Your task to perform on an android device: Open Maps and search for coffee Image 0: 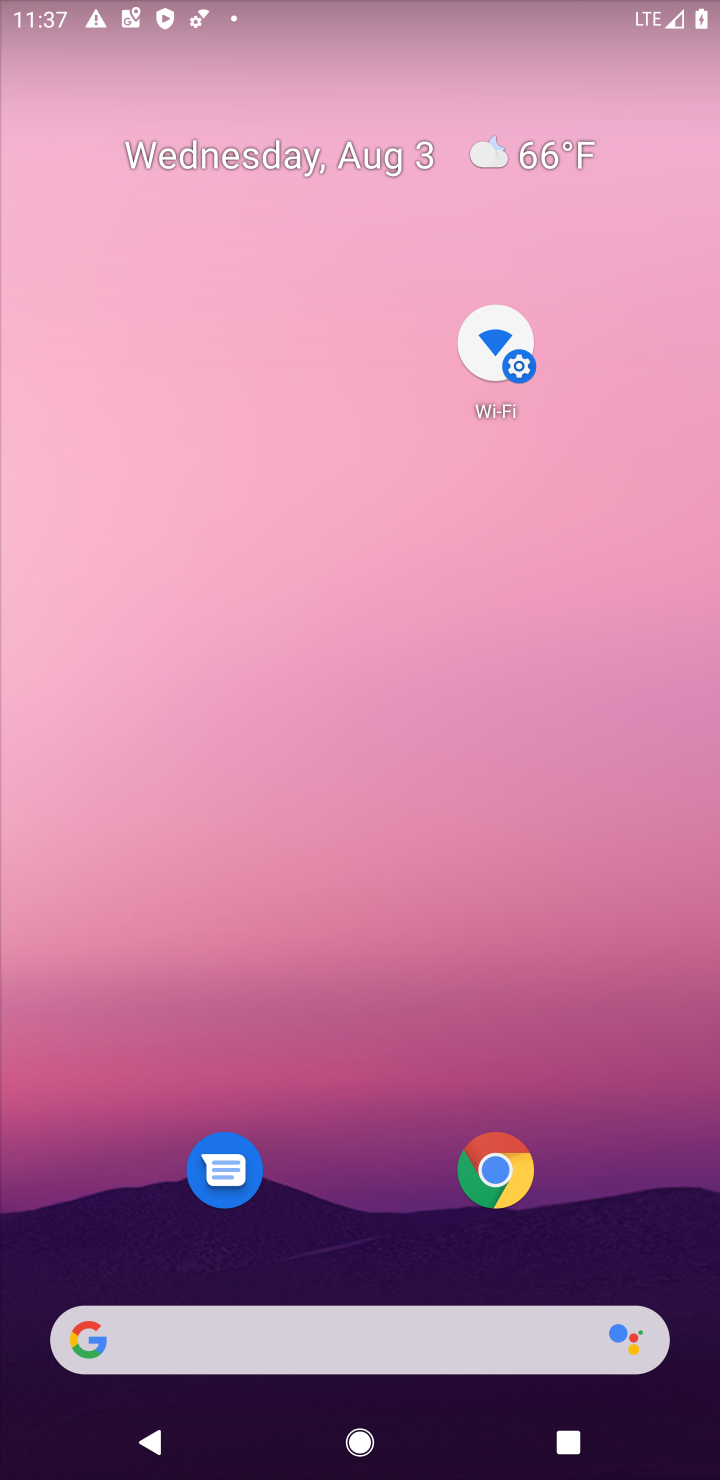
Step 0: click (655, 313)
Your task to perform on an android device: Open Maps and search for coffee Image 1: 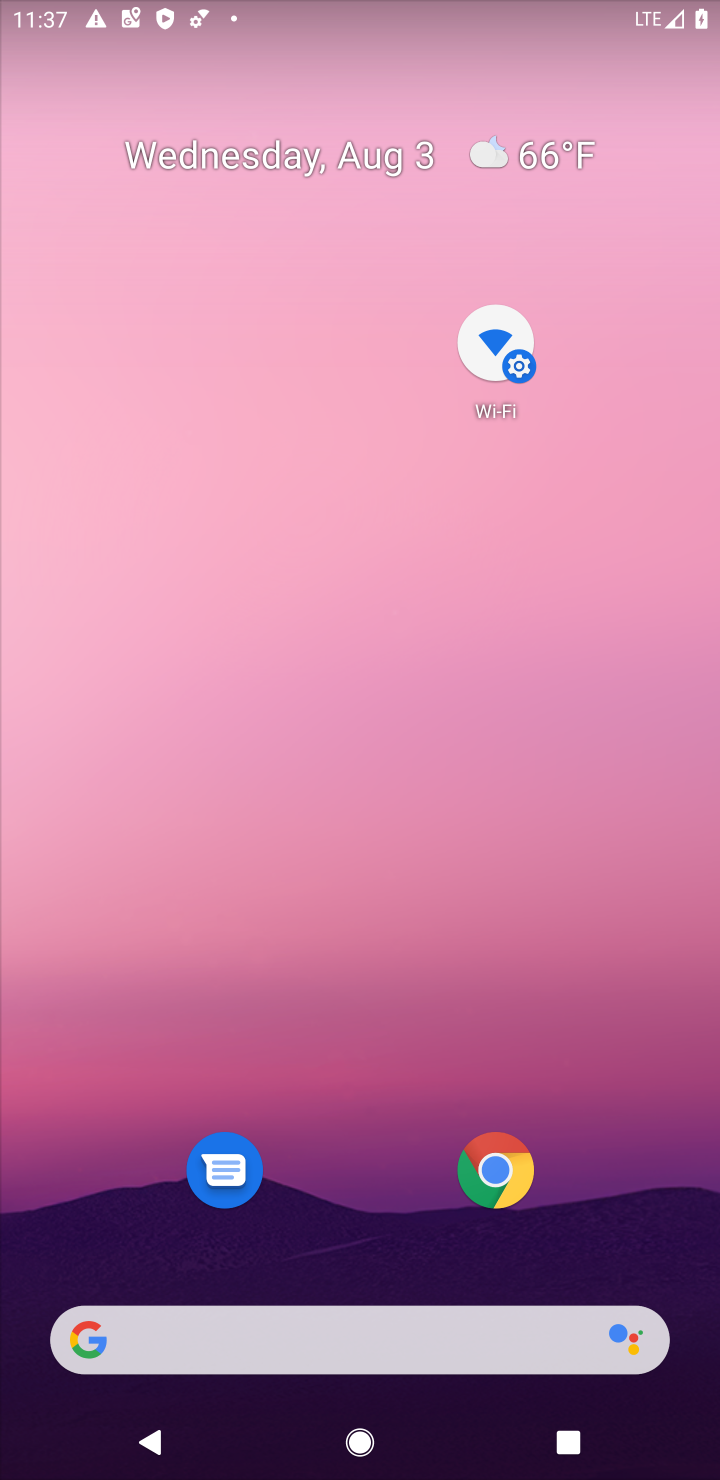
Step 1: drag from (478, 760) to (519, 491)
Your task to perform on an android device: Open Maps and search for coffee Image 2: 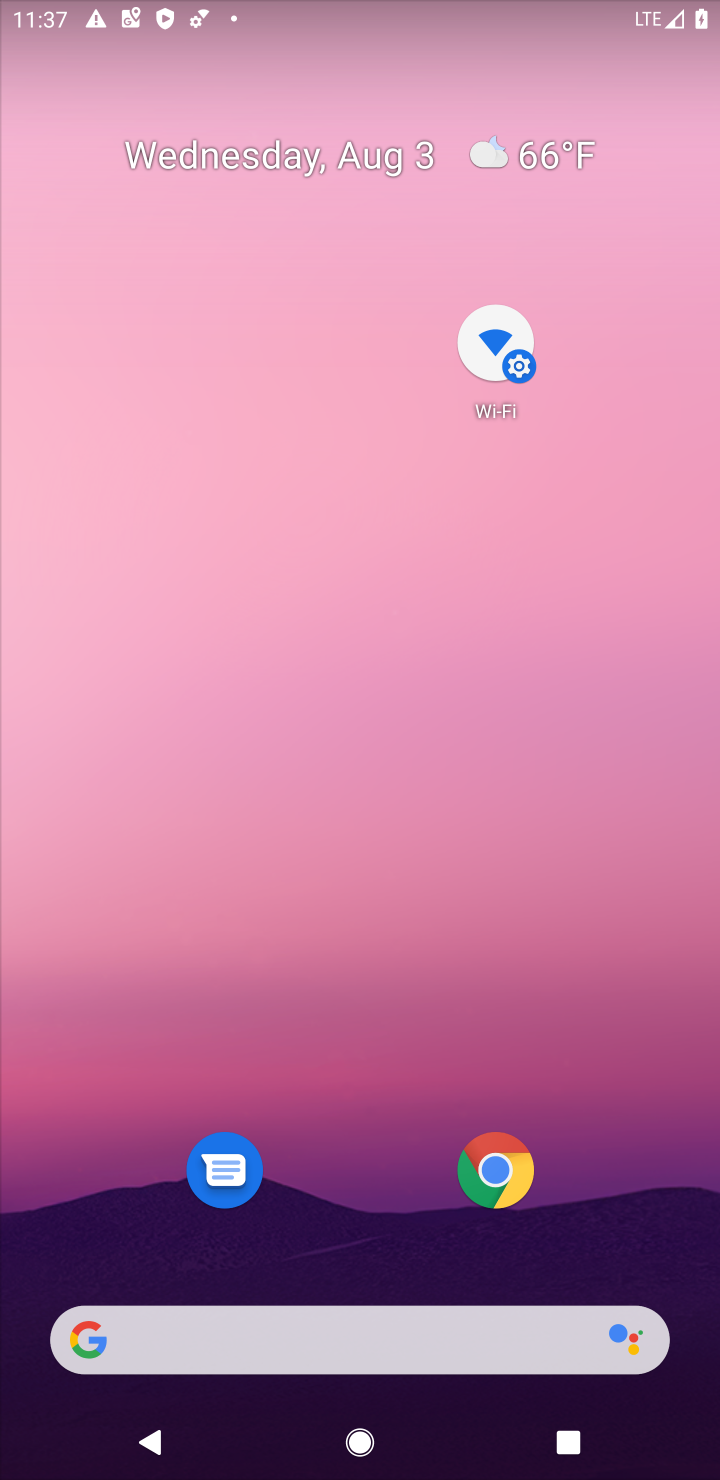
Step 2: drag from (302, 1056) to (335, 239)
Your task to perform on an android device: Open Maps and search for coffee Image 3: 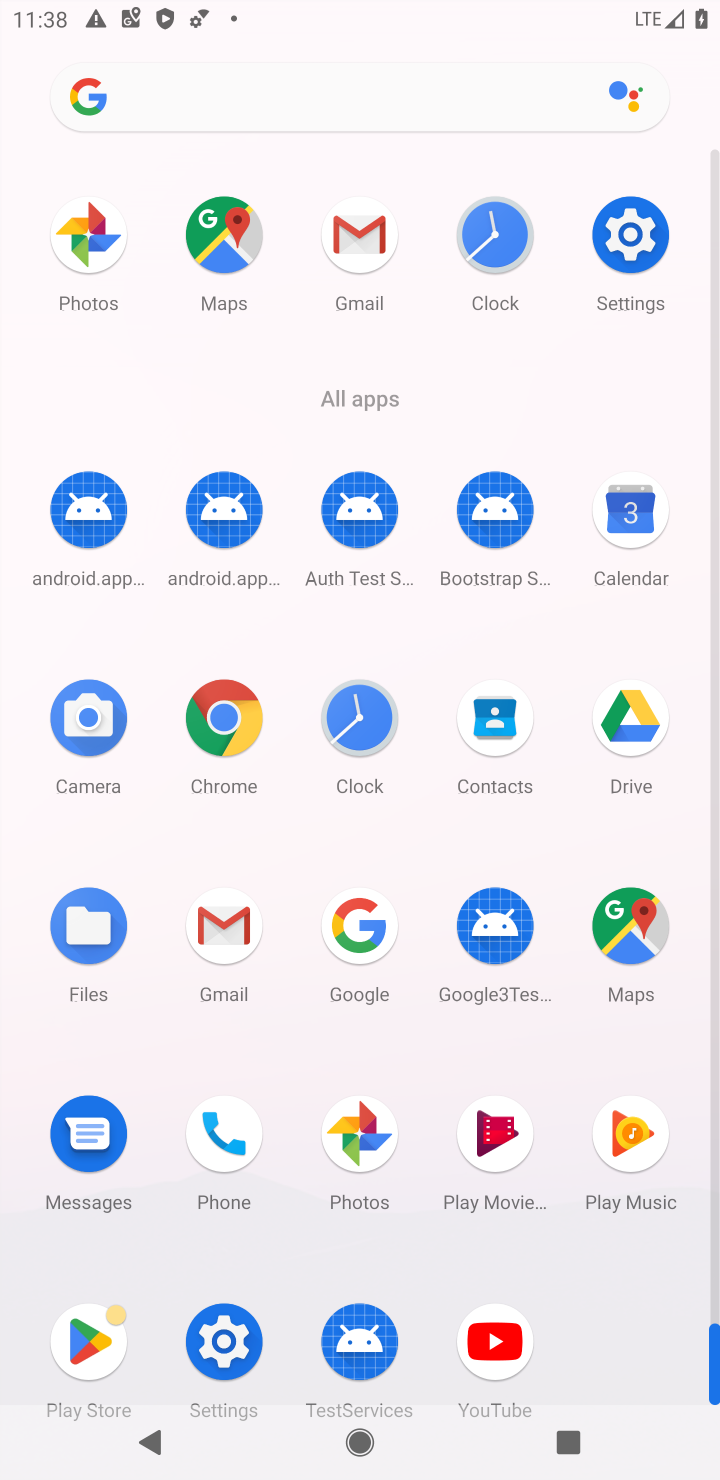
Step 3: click (633, 933)
Your task to perform on an android device: Open Maps and search for coffee Image 4: 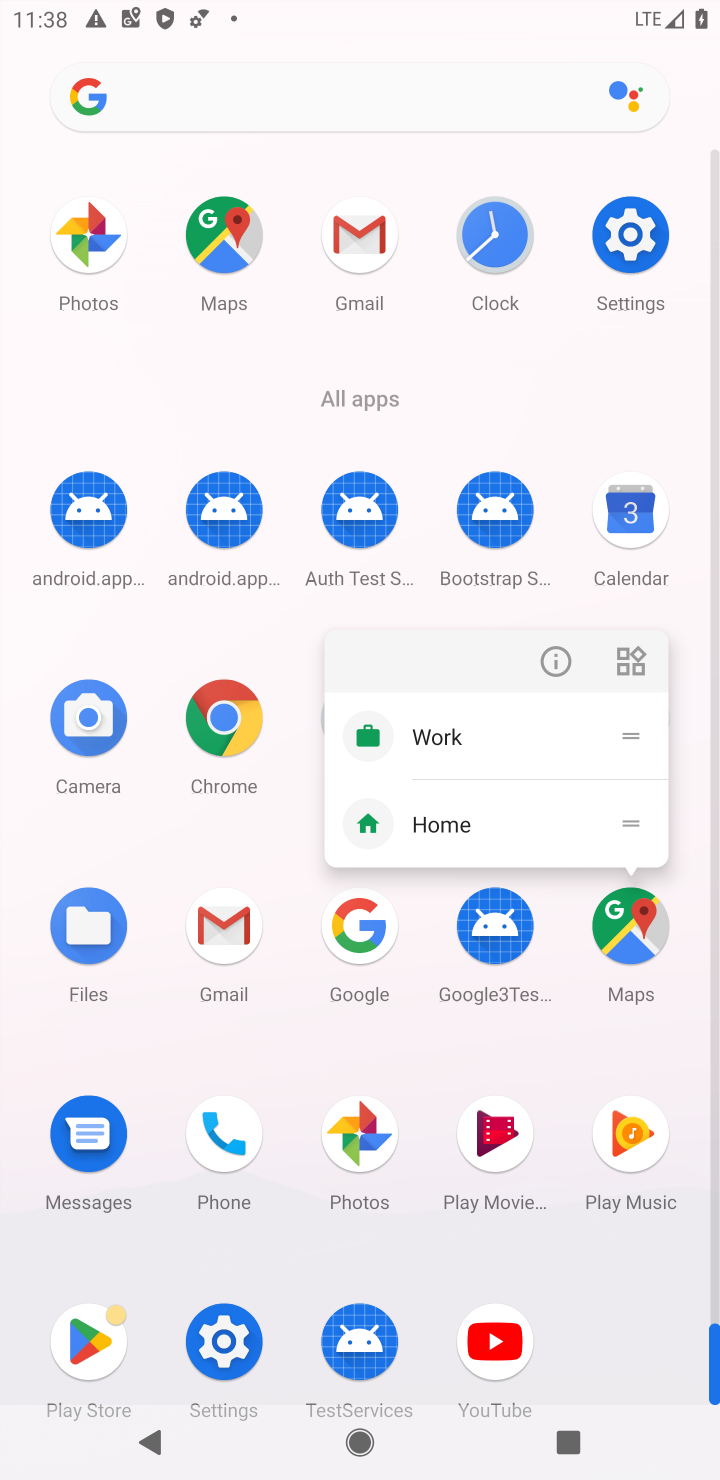
Step 4: click (535, 668)
Your task to perform on an android device: Open Maps and search for coffee Image 5: 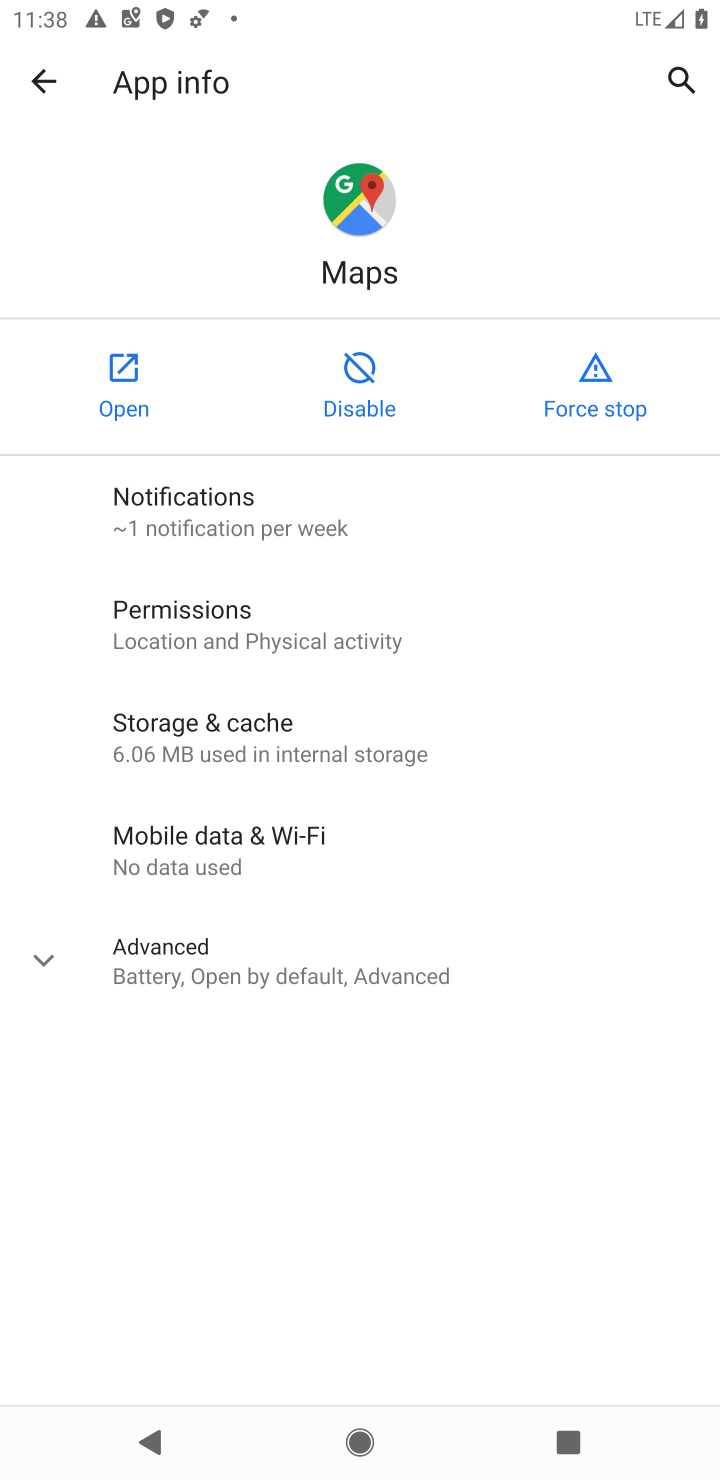
Step 5: click (98, 406)
Your task to perform on an android device: Open Maps and search for coffee Image 6: 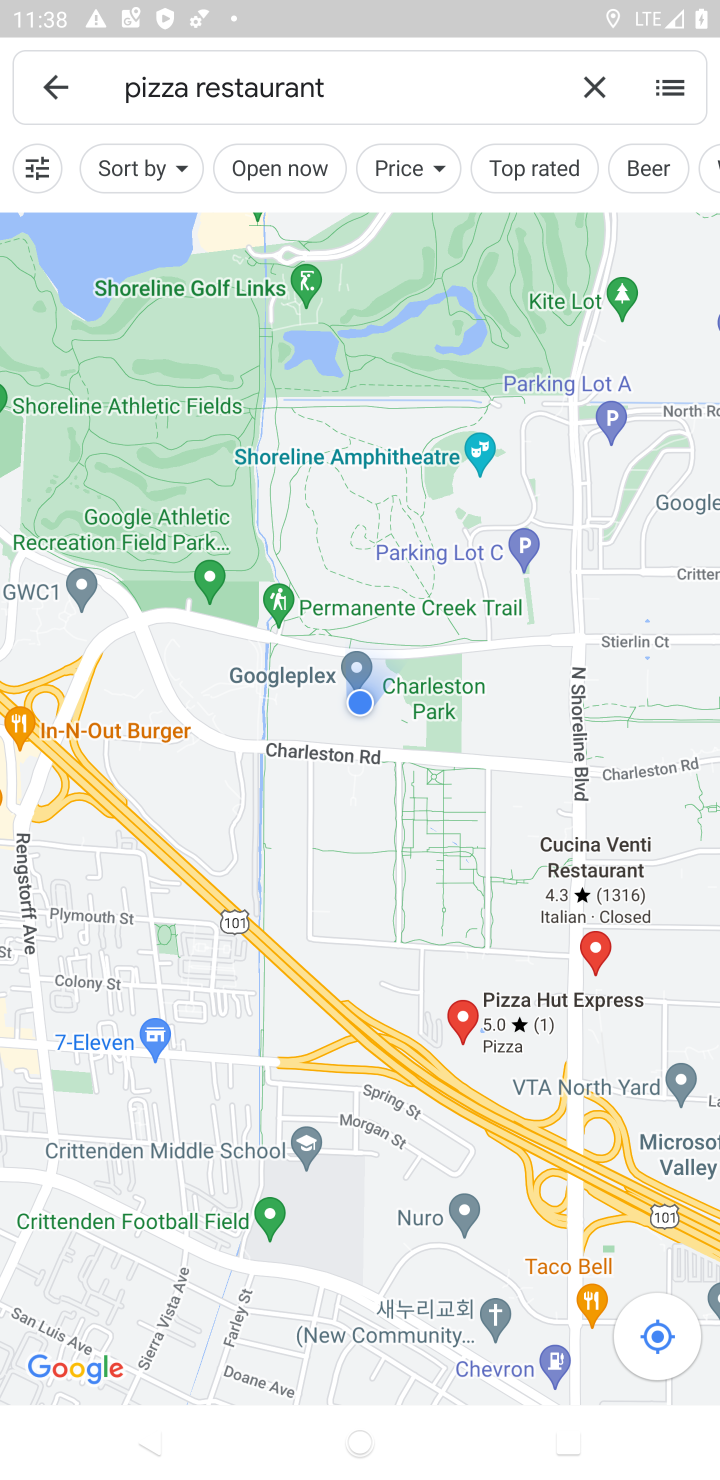
Step 6: click (590, 80)
Your task to perform on an android device: Open Maps and search for coffee Image 7: 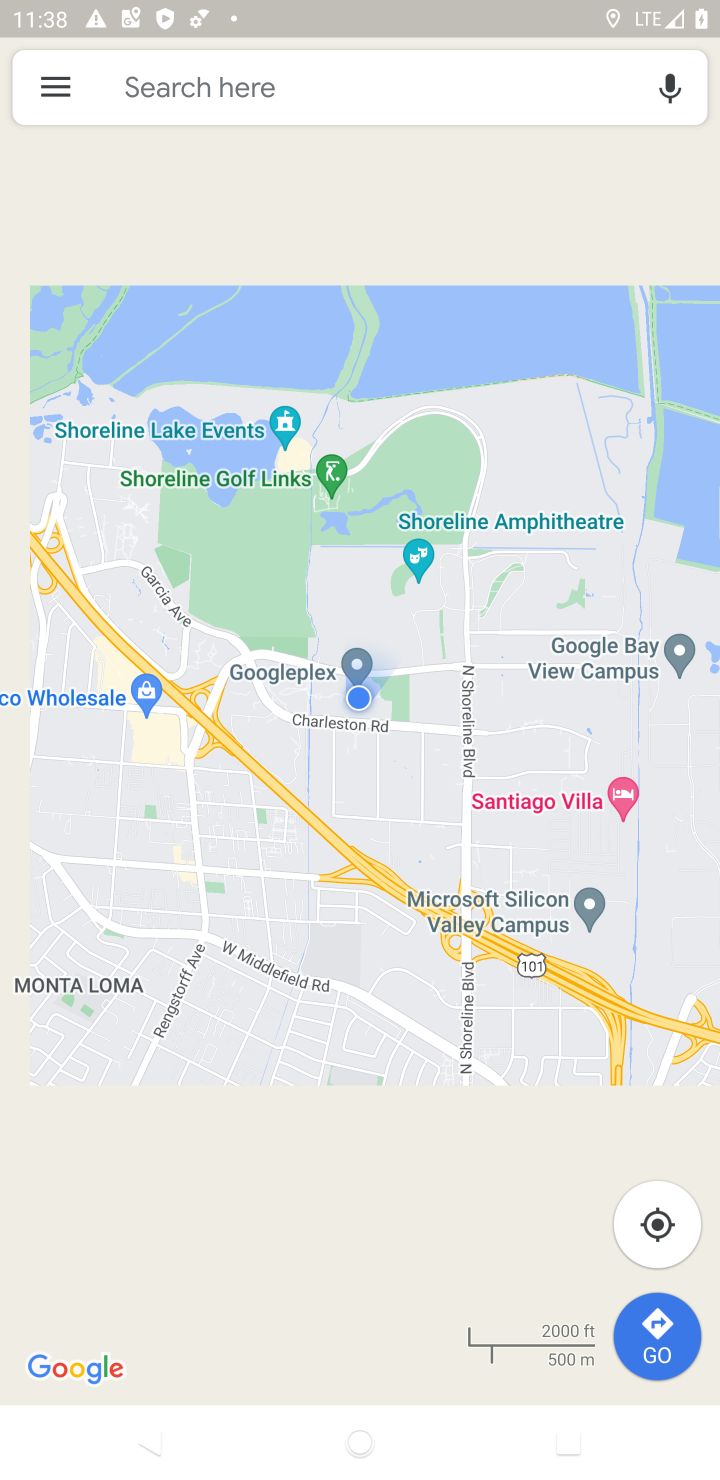
Step 7: click (314, 84)
Your task to perform on an android device: Open Maps and search for coffee Image 8: 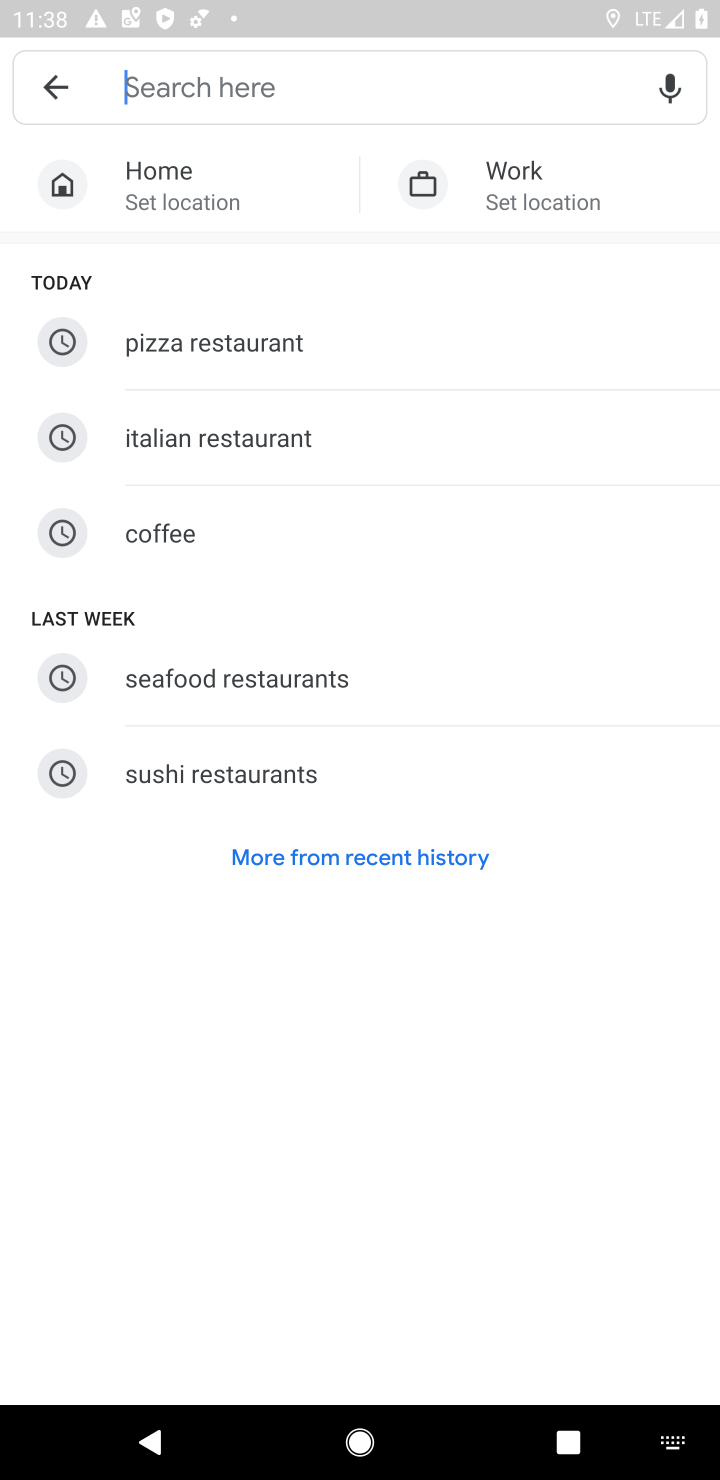
Step 8: click (181, 533)
Your task to perform on an android device: Open Maps and search for coffee Image 9: 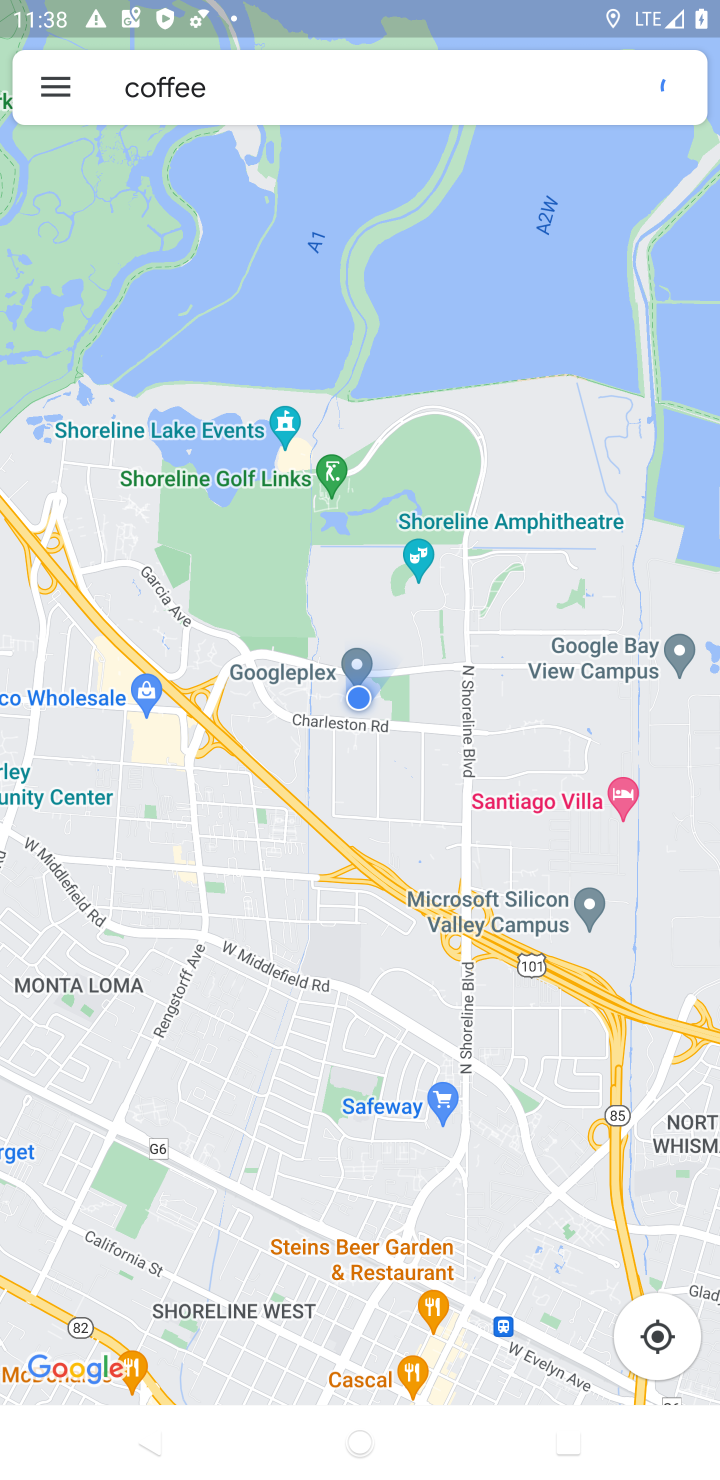
Step 9: task complete